Your task to perform on an android device: turn on improve location accuracy Image 0: 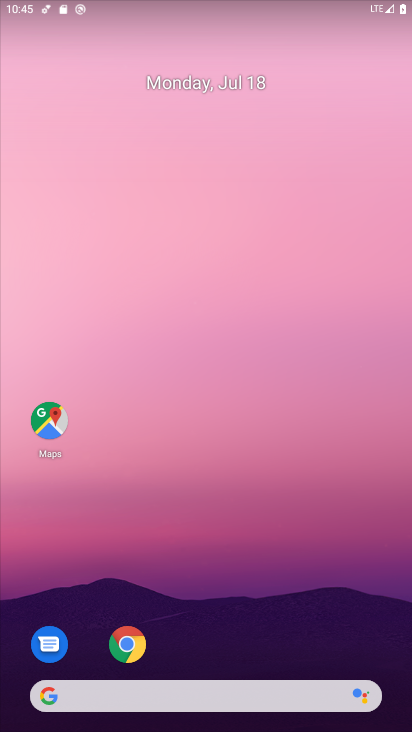
Step 0: drag from (333, 631) to (349, 141)
Your task to perform on an android device: turn on improve location accuracy Image 1: 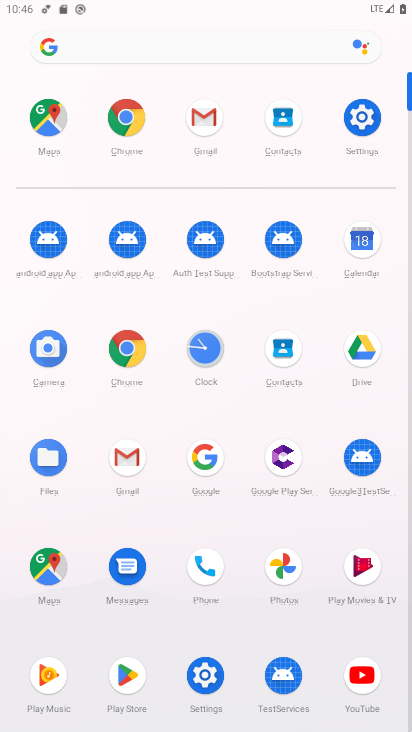
Step 1: click (361, 128)
Your task to perform on an android device: turn on improve location accuracy Image 2: 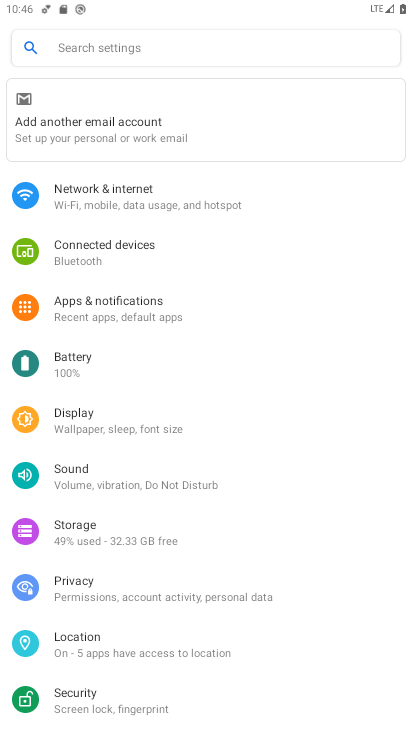
Step 2: drag from (323, 390) to (326, 314)
Your task to perform on an android device: turn on improve location accuracy Image 3: 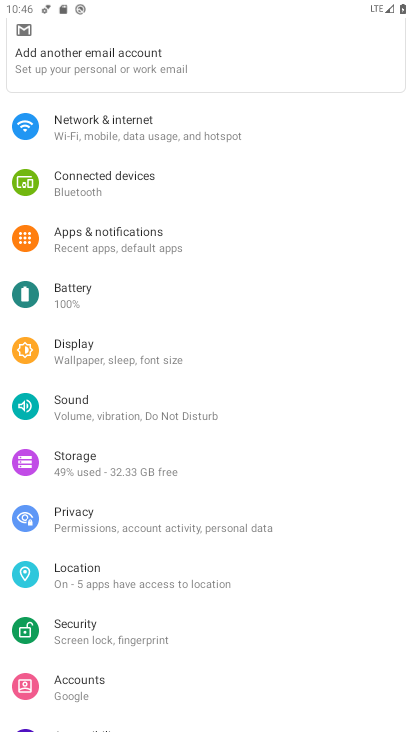
Step 3: drag from (340, 445) to (335, 349)
Your task to perform on an android device: turn on improve location accuracy Image 4: 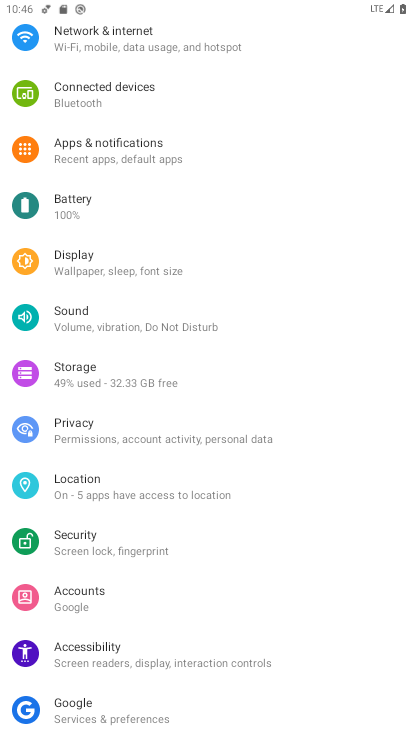
Step 4: drag from (336, 462) to (336, 352)
Your task to perform on an android device: turn on improve location accuracy Image 5: 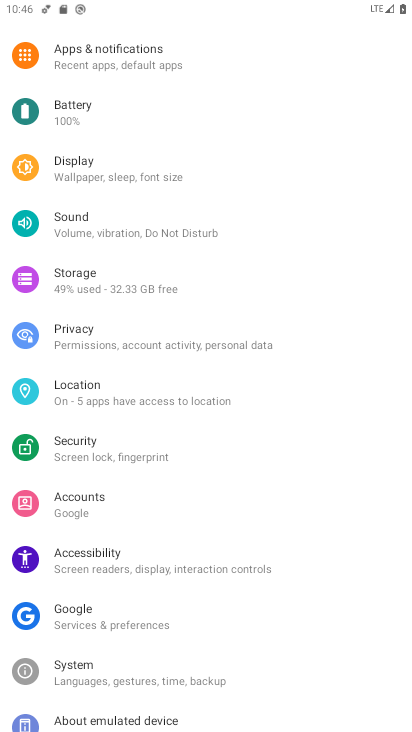
Step 5: drag from (336, 476) to (334, 369)
Your task to perform on an android device: turn on improve location accuracy Image 6: 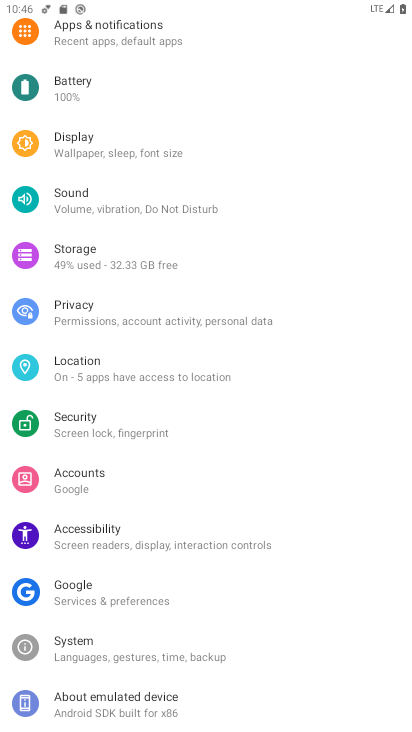
Step 6: click (234, 368)
Your task to perform on an android device: turn on improve location accuracy Image 7: 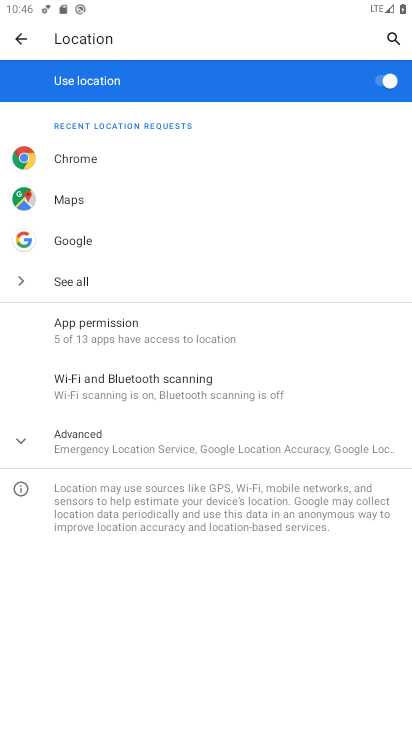
Step 7: click (196, 436)
Your task to perform on an android device: turn on improve location accuracy Image 8: 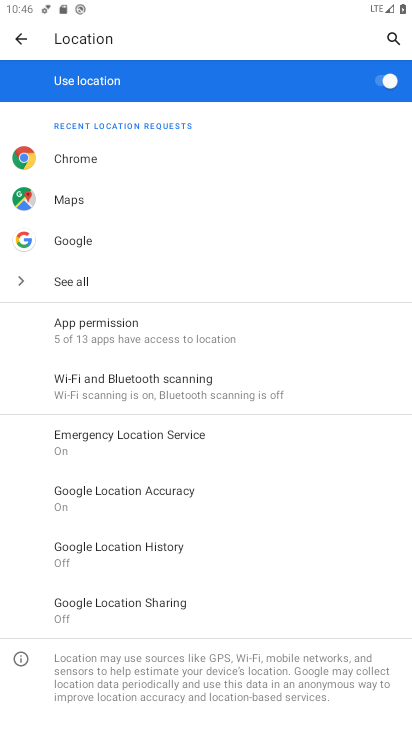
Step 8: drag from (300, 552) to (305, 472)
Your task to perform on an android device: turn on improve location accuracy Image 9: 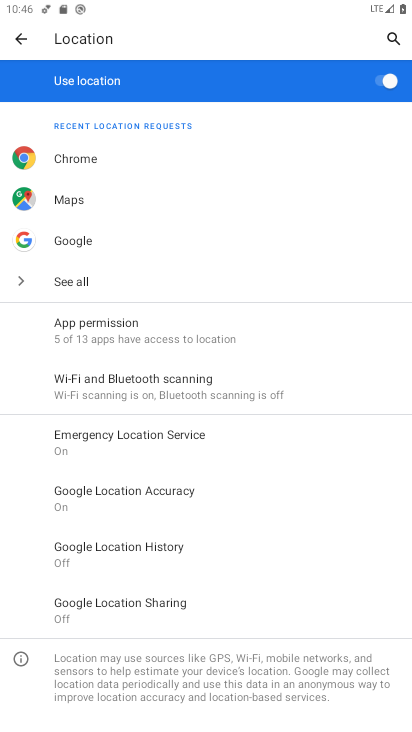
Step 9: click (130, 492)
Your task to perform on an android device: turn on improve location accuracy Image 10: 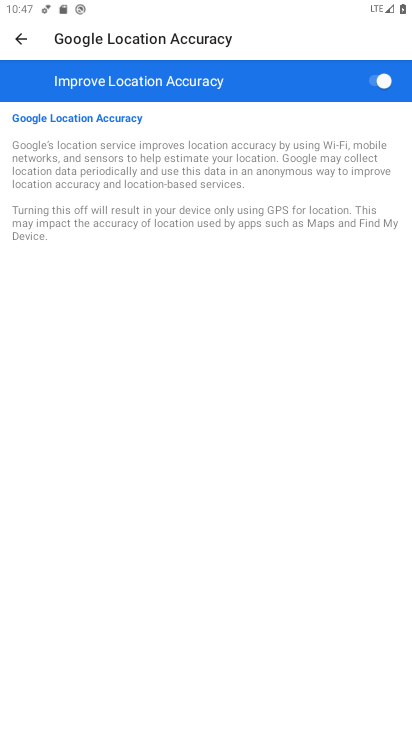
Step 10: task complete